Your task to perform on an android device: find photos in the google photos app Image 0: 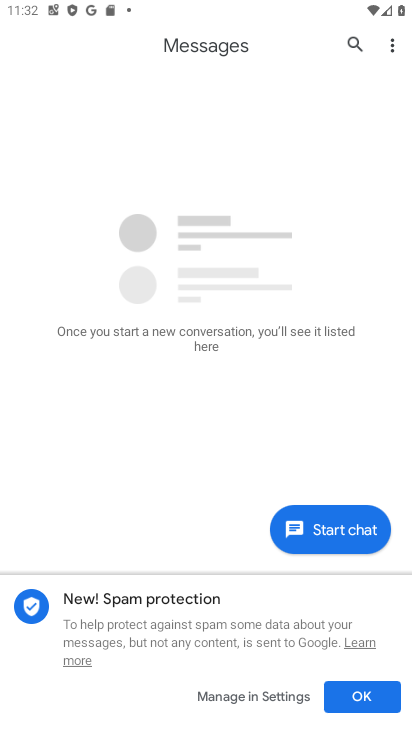
Step 0: press home button
Your task to perform on an android device: find photos in the google photos app Image 1: 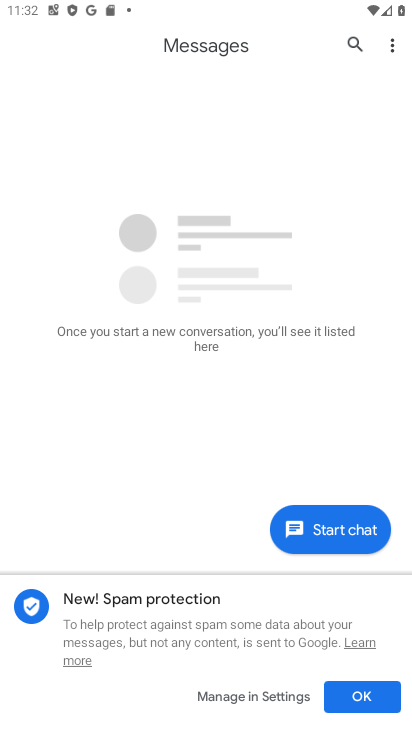
Step 1: press home button
Your task to perform on an android device: find photos in the google photos app Image 2: 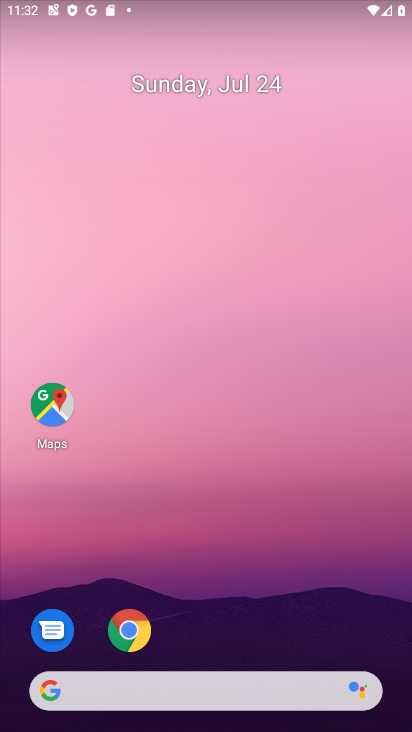
Step 2: drag from (297, 642) to (316, 73)
Your task to perform on an android device: find photos in the google photos app Image 3: 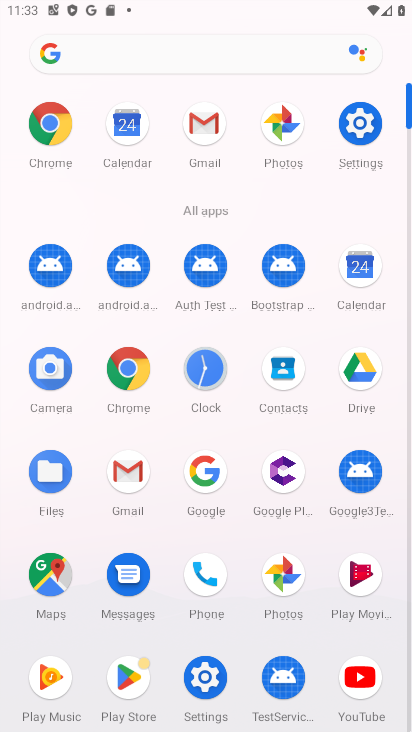
Step 3: click (303, 572)
Your task to perform on an android device: find photos in the google photos app Image 4: 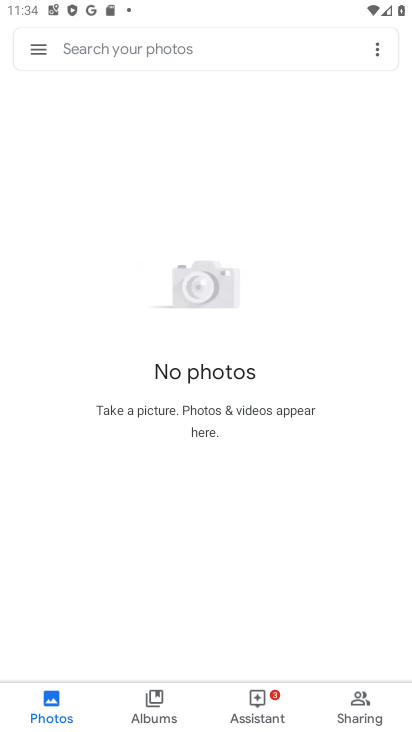
Step 4: task complete